Your task to perform on an android device: turn on data saver in the chrome app Image 0: 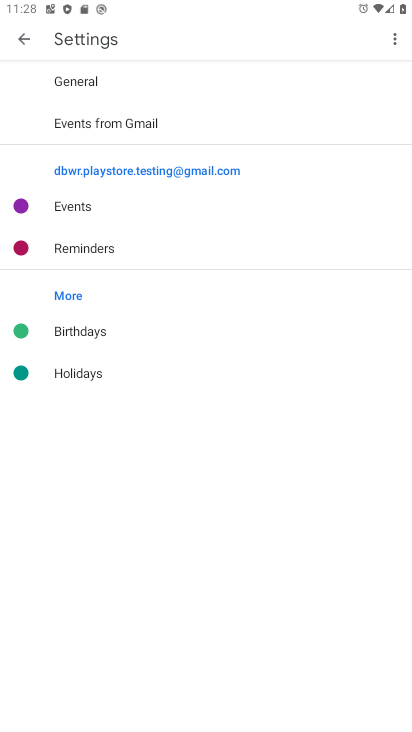
Step 0: press home button
Your task to perform on an android device: turn on data saver in the chrome app Image 1: 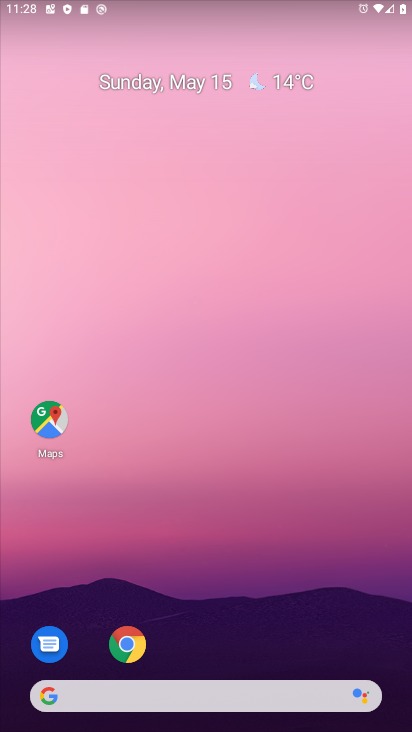
Step 1: click (130, 641)
Your task to perform on an android device: turn on data saver in the chrome app Image 2: 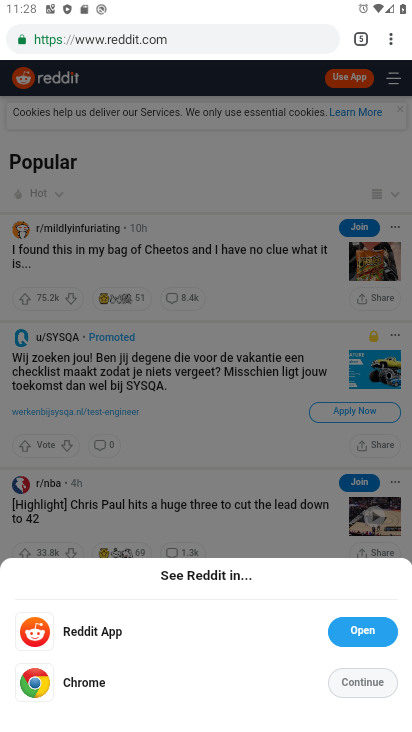
Step 2: press home button
Your task to perform on an android device: turn on data saver in the chrome app Image 3: 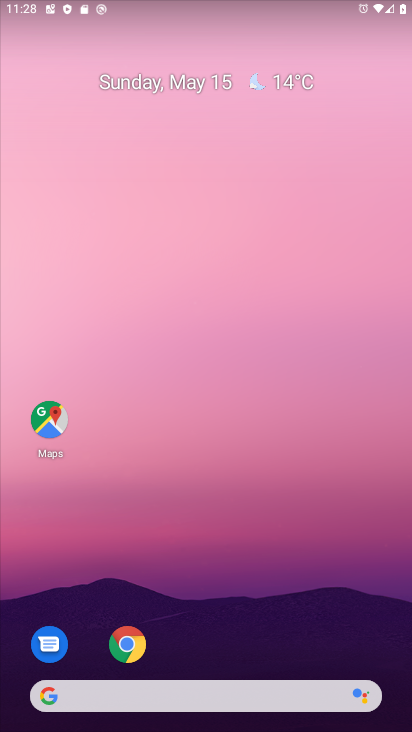
Step 3: click (123, 646)
Your task to perform on an android device: turn on data saver in the chrome app Image 4: 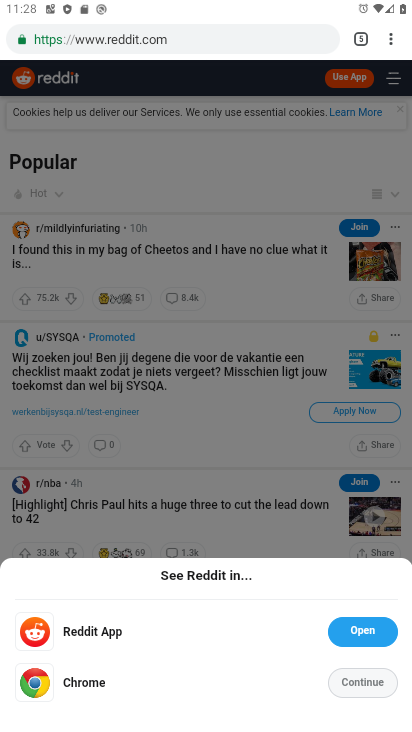
Step 4: click (393, 43)
Your task to perform on an android device: turn on data saver in the chrome app Image 5: 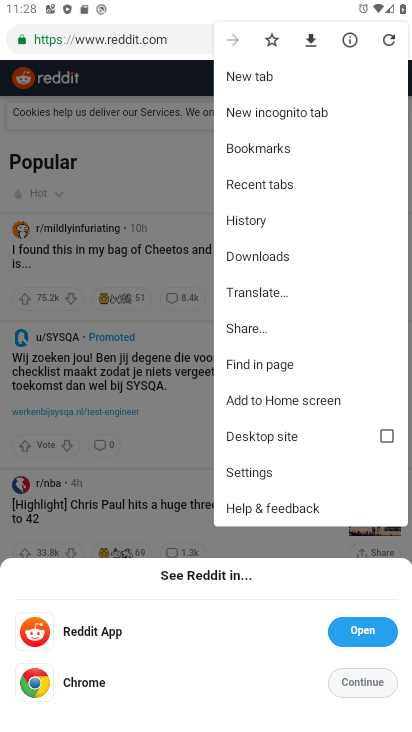
Step 5: click (275, 476)
Your task to perform on an android device: turn on data saver in the chrome app Image 6: 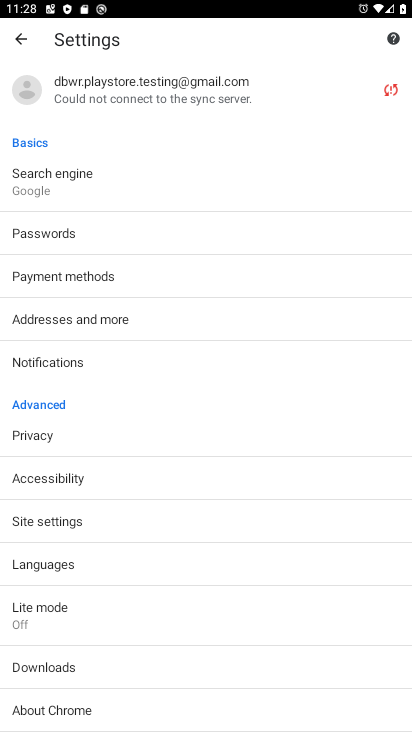
Step 6: click (136, 625)
Your task to perform on an android device: turn on data saver in the chrome app Image 7: 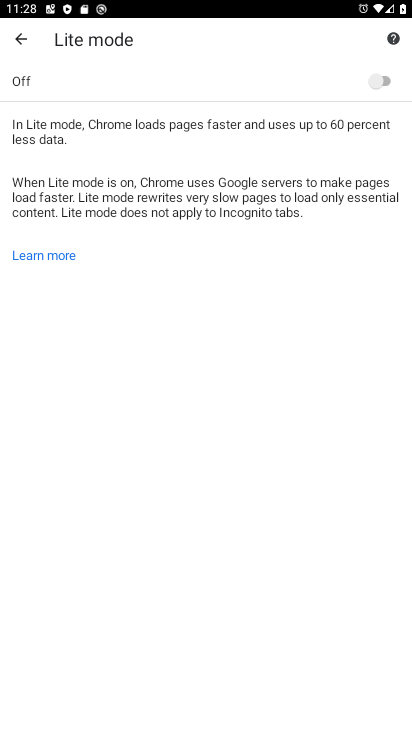
Step 7: click (382, 90)
Your task to perform on an android device: turn on data saver in the chrome app Image 8: 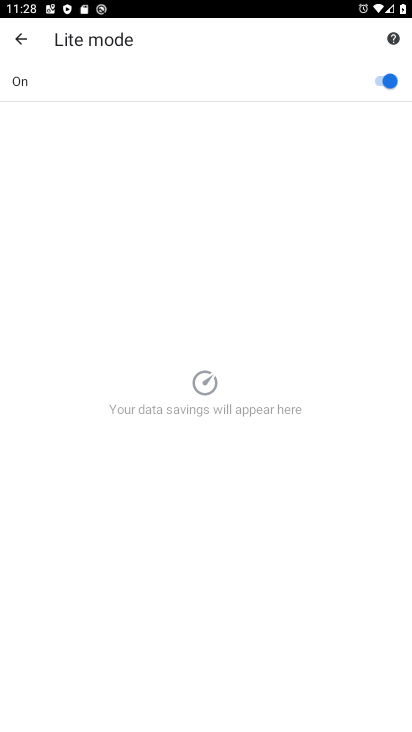
Step 8: task complete